Your task to perform on an android device: Open battery settings Image 0: 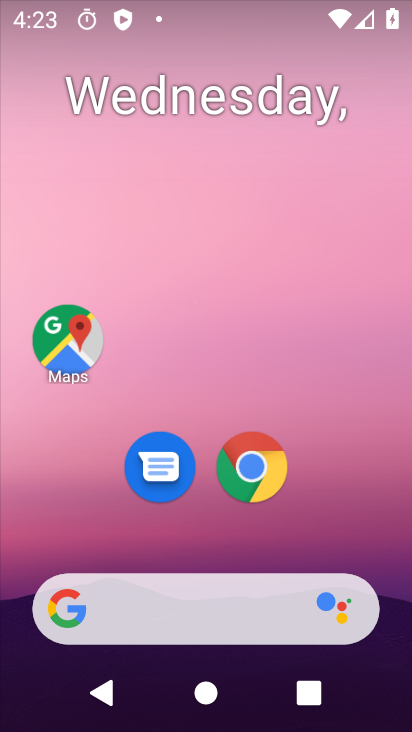
Step 0: drag from (410, 461) to (410, 134)
Your task to perform on an android device: Open battery settings Image 1: 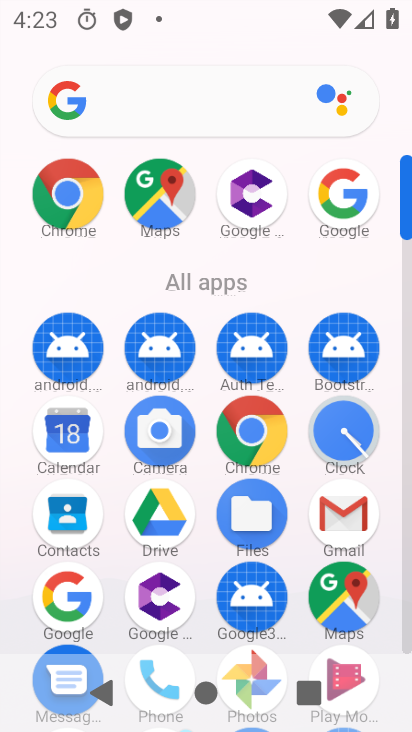
Step 1: drag from (408, 145) to (411, 95)
Your task to perform on an android device: Open battery settings Image 2: 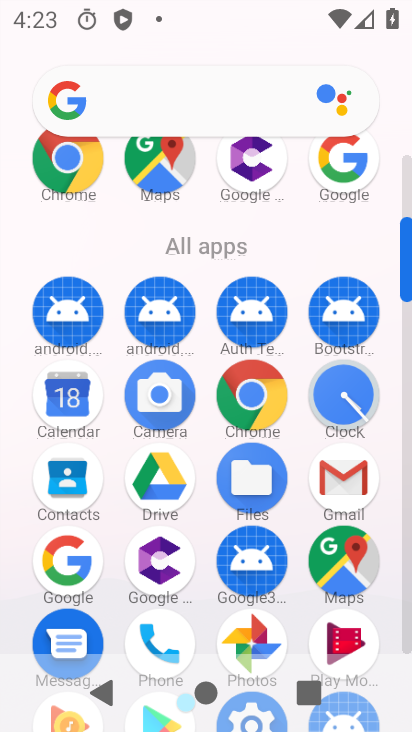
Step 2: drag from (411, 182) to (411, 138)
Your task to perform on an android device: Open battery settings Image 3: 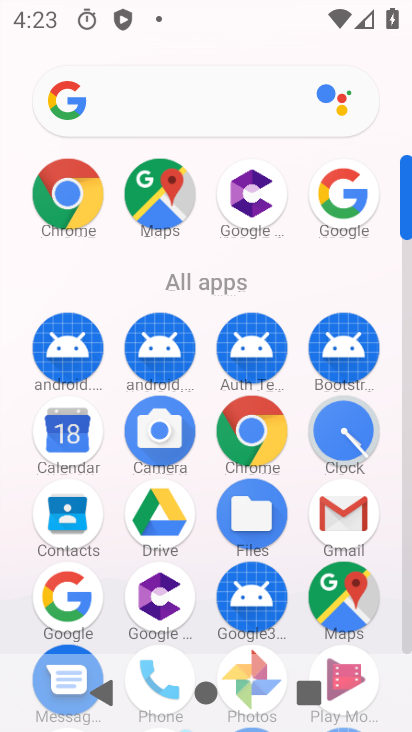
Step 3: drag from (405, 170) to (404, 84)
Your task to perform on an android device: Open battery settings Image 4: 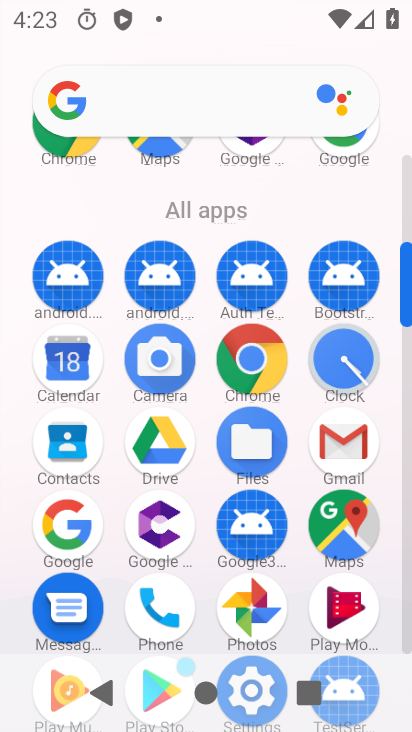
Step 4: drag from (407, 248) to (402, 151)
Your task to perform on an android device: Open battery settings Image 5: 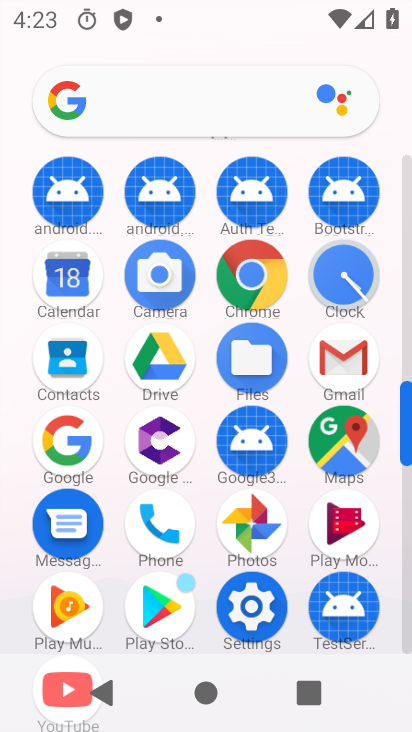
Step 5: click (249, 633)
Your task to perform on an android device: Open battery settings Image 6: 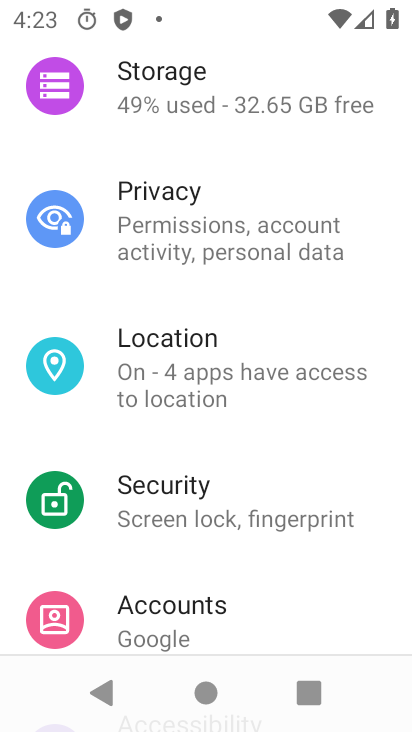
Step 6: drag from (358, 115) to (348, 429)
Your task to perform on an android device: Open battery settings Image 7: 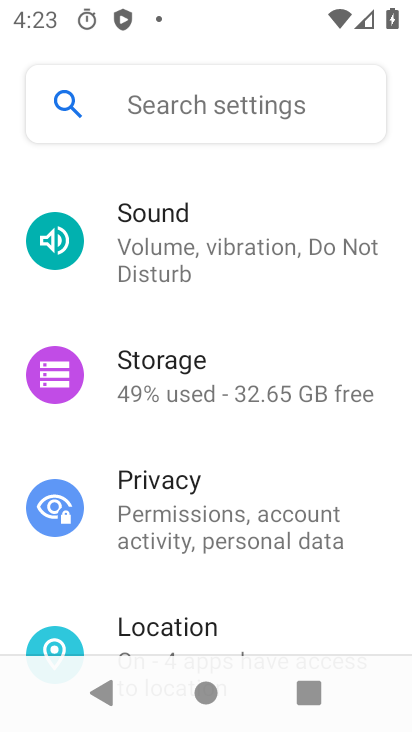
Step 7: drag from (352, 236) to (385, 534)
Your task to perform on an android device: Open battery settings Image 8: 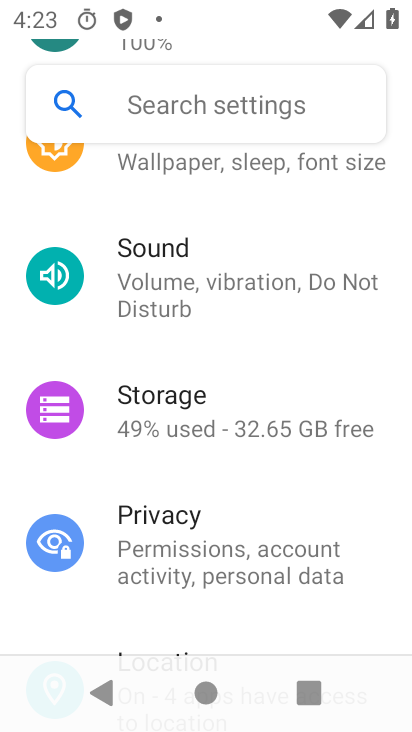
Step 8: drag from (353, 260) to (347, 440)
Your task to perform on an android device: Open battery settings Image 9: 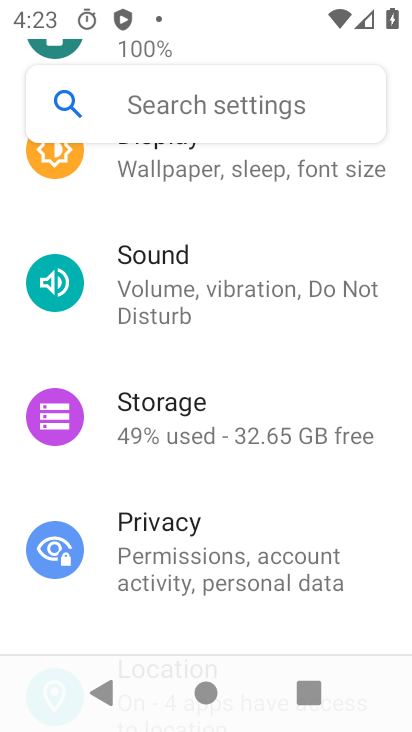
Step 9: drag from (336, 201) to (348, 486)
Your task to perform on an android device: Open battery settings Image 10: 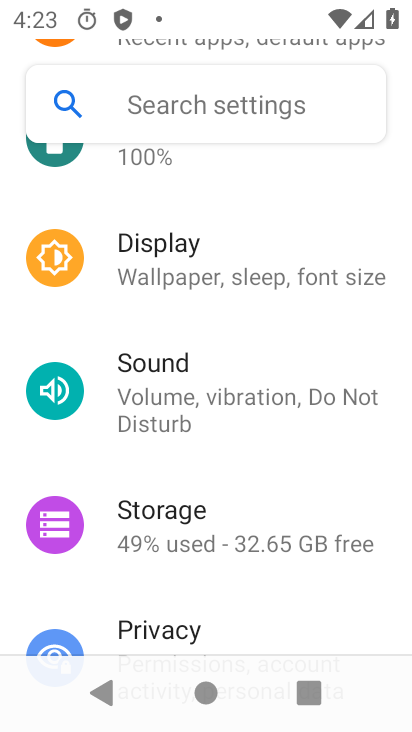
Step 10: drag from (310, 376) to (322, 518)
Your task to perform on an android device: Open battery settings Image 11: 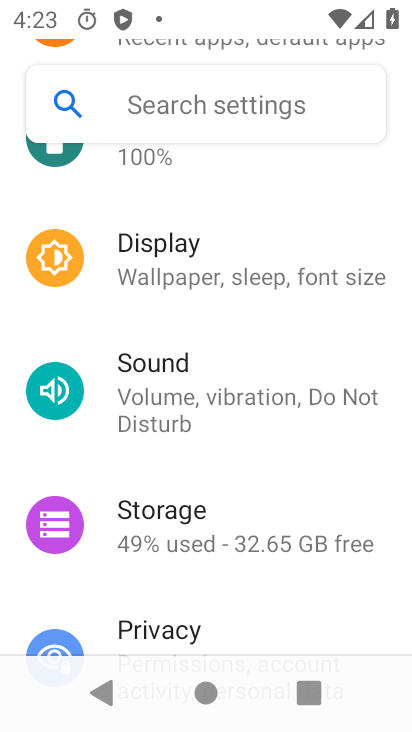
Step 11: click (120, 148)
Your task to perform on an android device: Open battery settings Image 12: 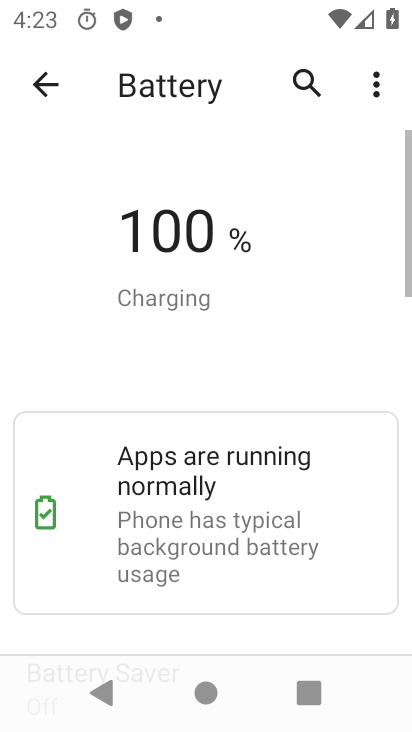
Step 12: task complete